Your task to perform on an android device: search for starred emails in the gmail app Image 0: 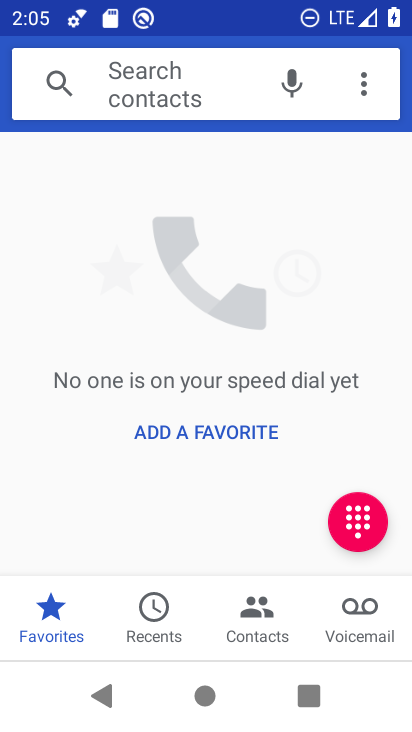
Step 0: press home button
Your task to perform on an android device: search for starred emails in the gmail app Image 1: 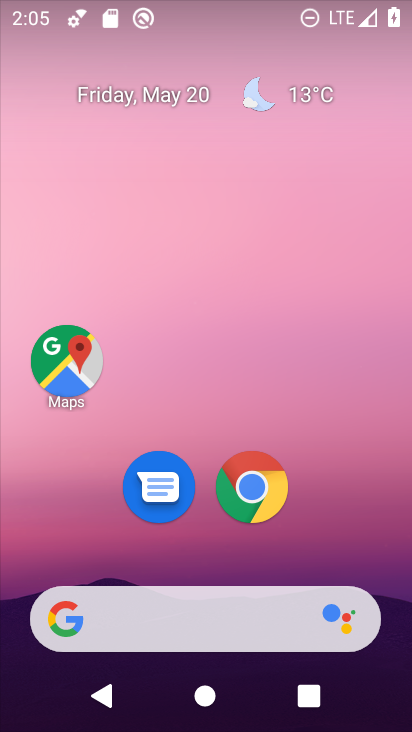
Step 1: drag from (207, 561) to (239, 52)
Your task to perform on an android device: search for starred emails in the gmail app Image 2: 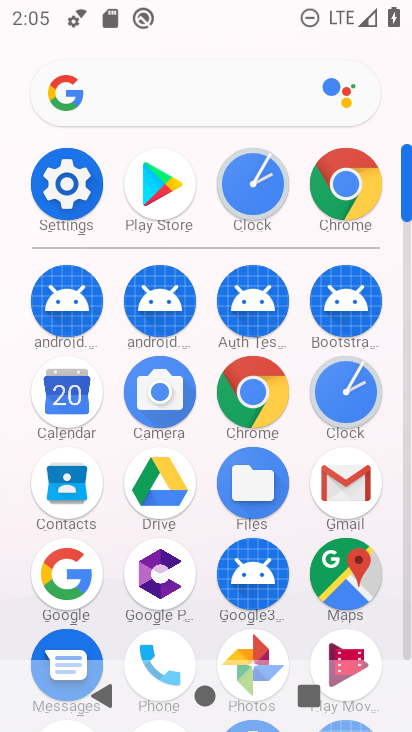
Step 2: click (341, 477)
Your task to perform on an android device: search for starred emails in the gmail app Image 3: 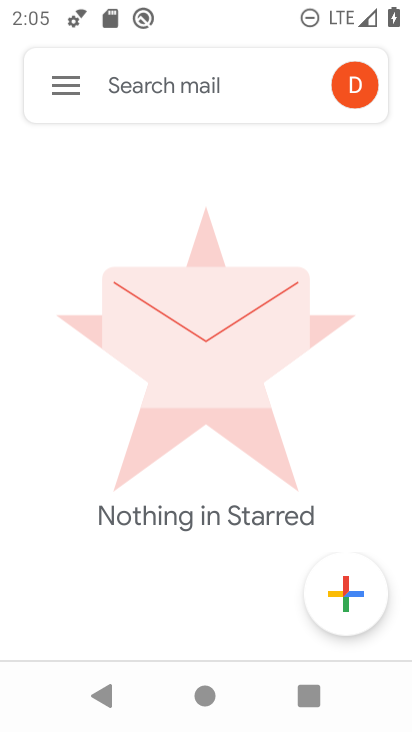
Step 3: click (63, 72)
Your task to perform on an android device: search for starred emails in the gmail app Image 4: 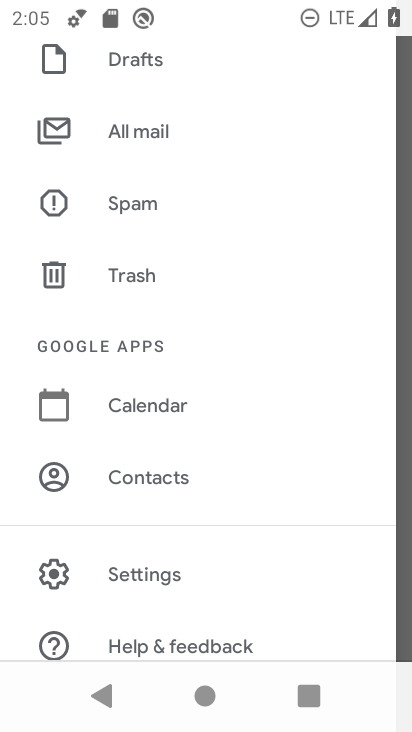
Step 4: drag from (183, 95) to (242, 647)
Your task to perform on an android device: search for starred emails in the gmail app Image 5: 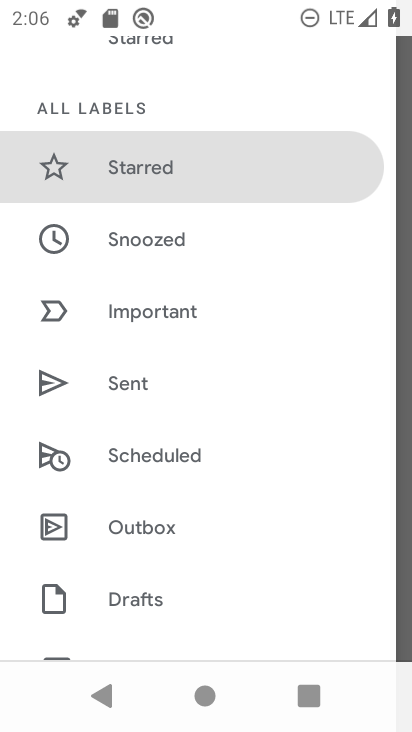
Step 5: click (180, 159)
Your task to perform on an android device: search for starred emails in the gmail app Image 6: 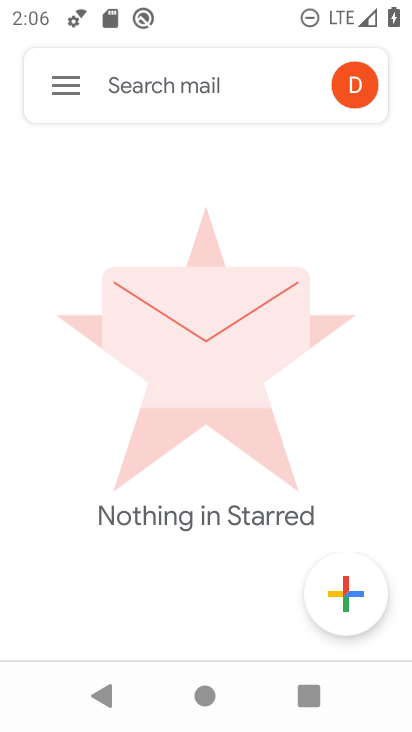
Step 6: task complete